Your task to perform on an android device: toggle airplane mode Image 0: 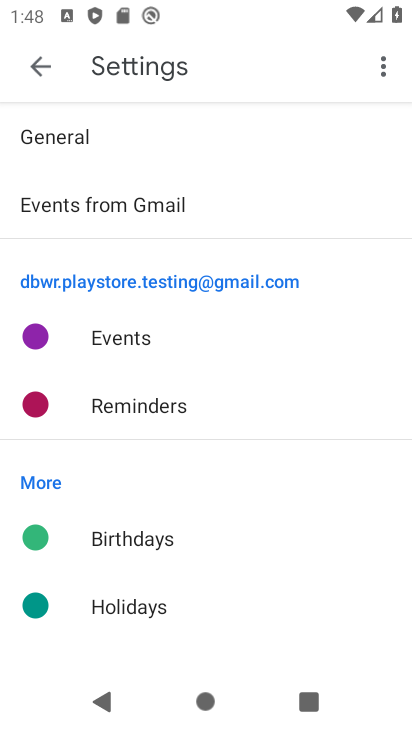
Step 0: press home button
Your task to perform on an android device: toggle airplane mode Image 1: 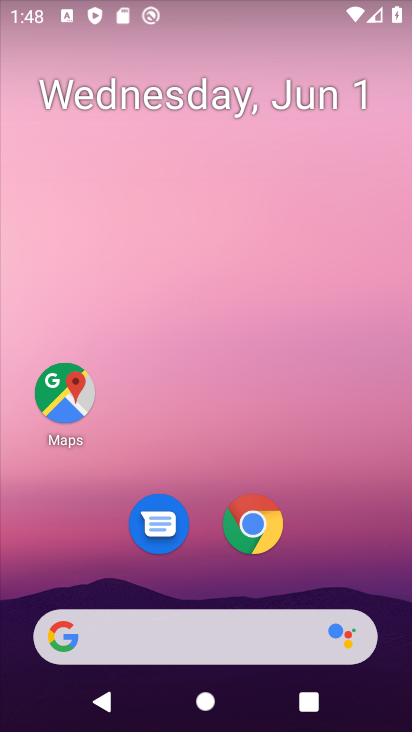
Step 1: drag from (304, 522) to (321, 32)
Your task to perform on an android device: toggle airplane mode Image 2: 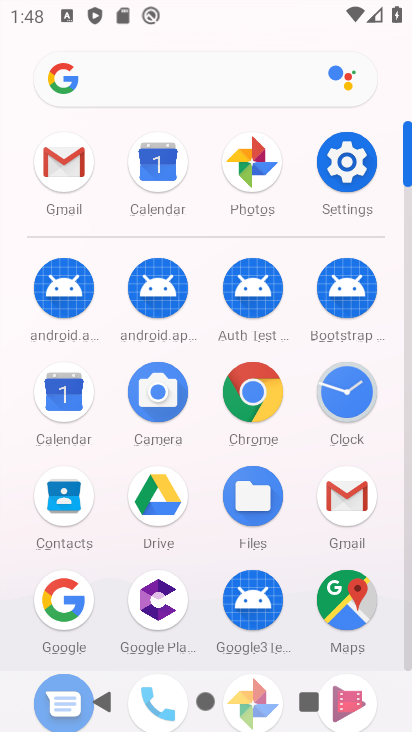
Step 2: click (343, 161)
Your task to perform on an android device: toggle airplane mode Image 3: 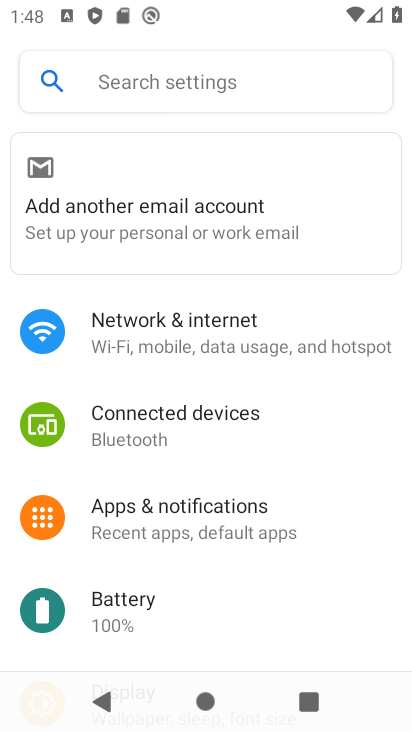
Step 3: click (227, 337)
Your task to perform on an android device: toggle airplane mode Image 4: 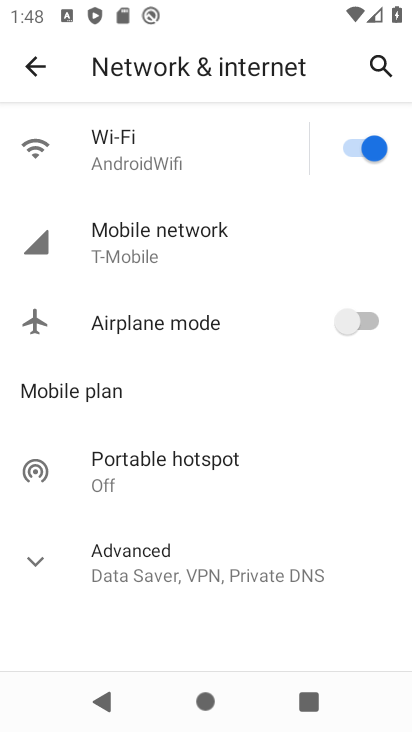
Step 4: click (348, 314)
Your task to perform on an android device: toggle airplane mode Image 5: 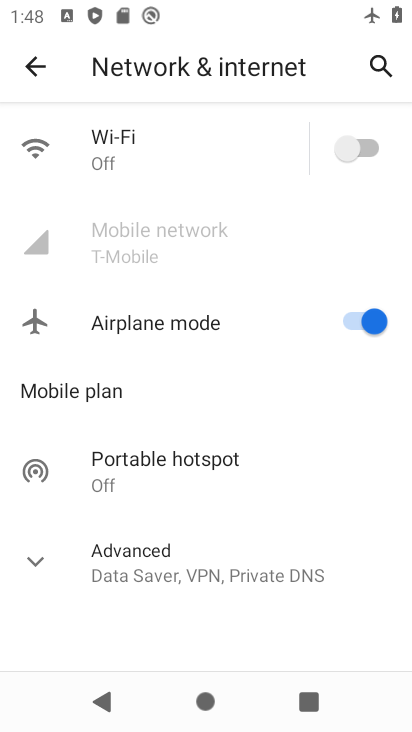
Step 5: task complete